Your task to perform on an android device: delete the emails in spam in the gmail app Image 0: 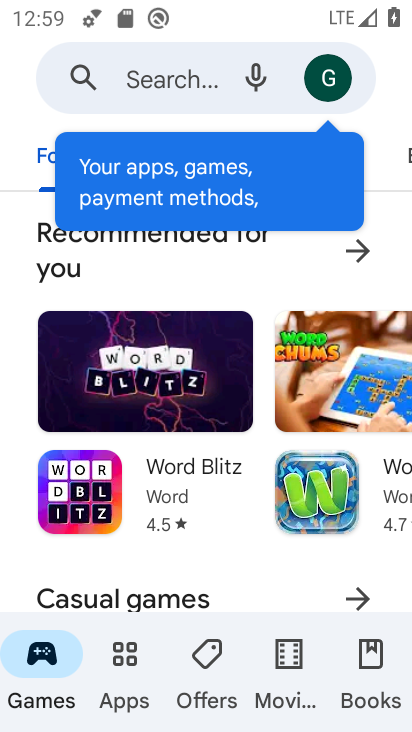
Step 0: press home button
Your task to perform on an android device: delete the emails in spam in the gmail app Image 1: 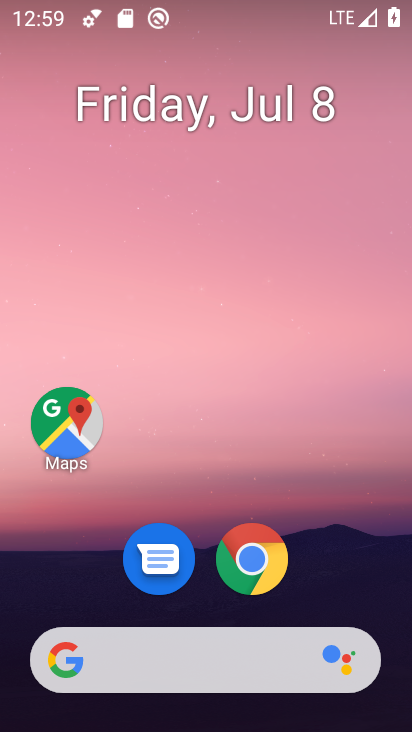
Step 1: drag from (232, 619) to (346, 0)
Your task to perform on an android device: delete the emails in spam in the gmail app Image 2: 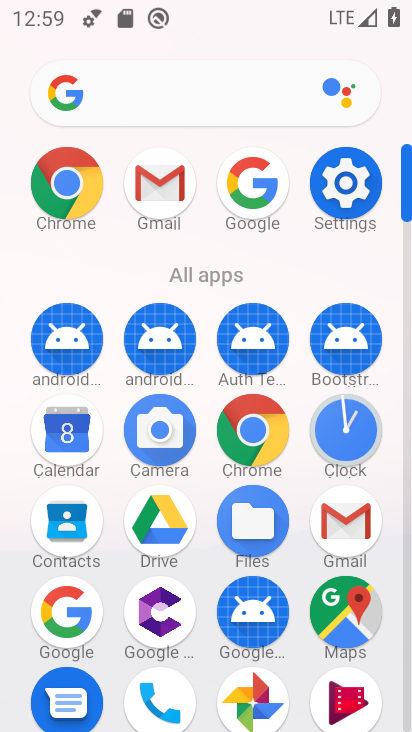
Step 2: click (342, 511)
Your task to perform on an android device: delete the emails in spam in the gmail app Image 3: 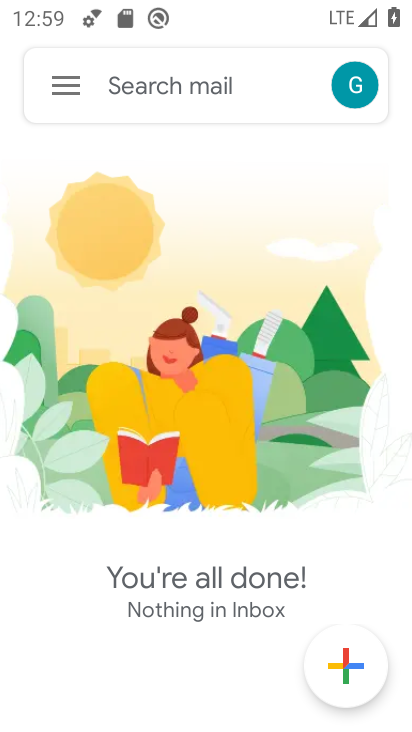
Step 3: drag from (205, 245) to (205, 498)
Your task to perform on an android device: delete the emails in spam in the gmail app Image 4: 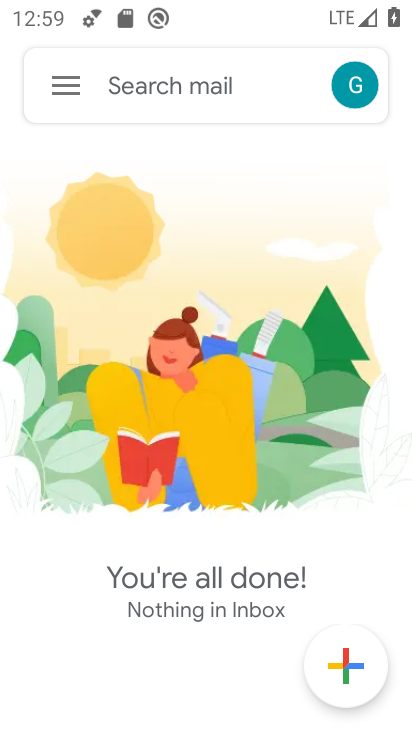
Step 4: click (49, 83)
Your task to perform on an android device: delete the emails in spam in the gmail app Image 5: 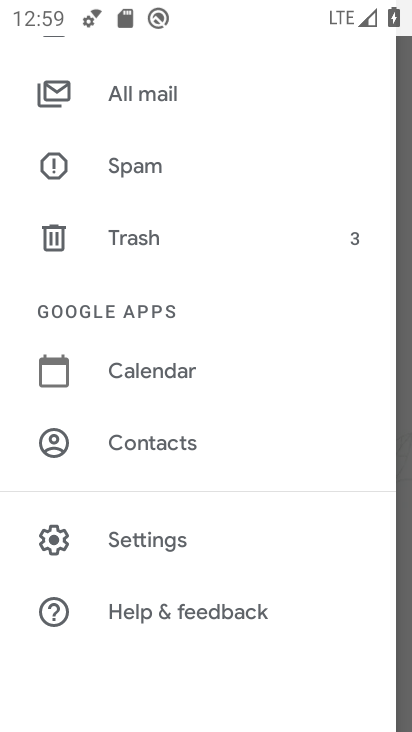
Step 5: click (112, 176)
Your task to perform on an android device: delete the emails in spam in the gmail app Image 6: 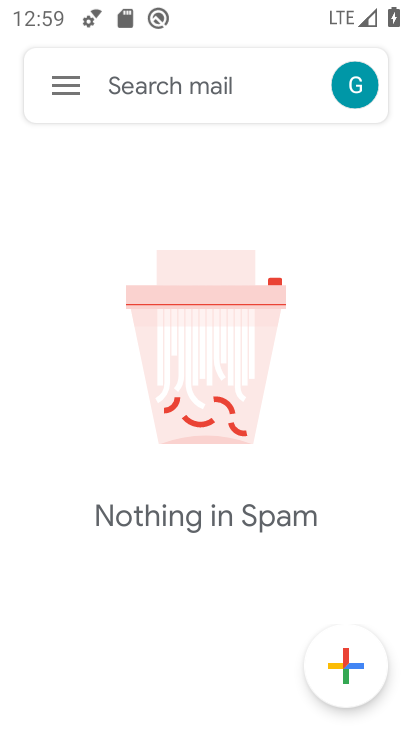
Step 6: task complete